Your task to perform on an android device: Open ESPN.com Image 0: 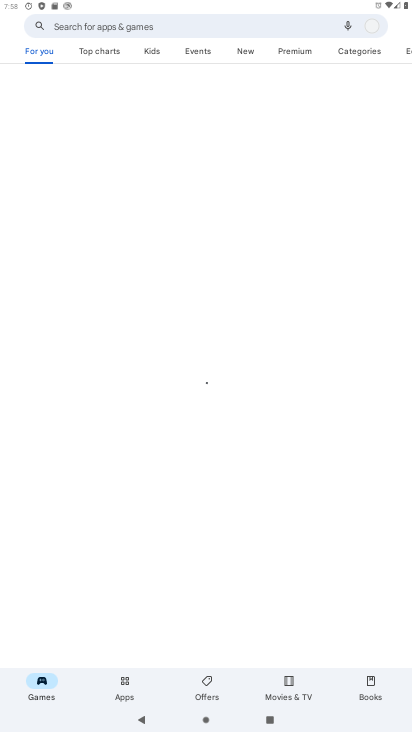
Step 0: press home button
Your task to perform on an android device: Open ESPN.com Image 1: 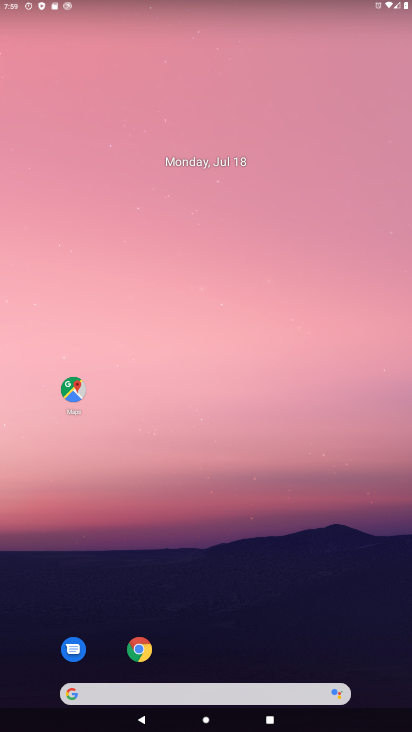
Step 1: drag from (247, 589) to (158, 51)
Your task to perform on an android device: Open ESPN.com Image 2: 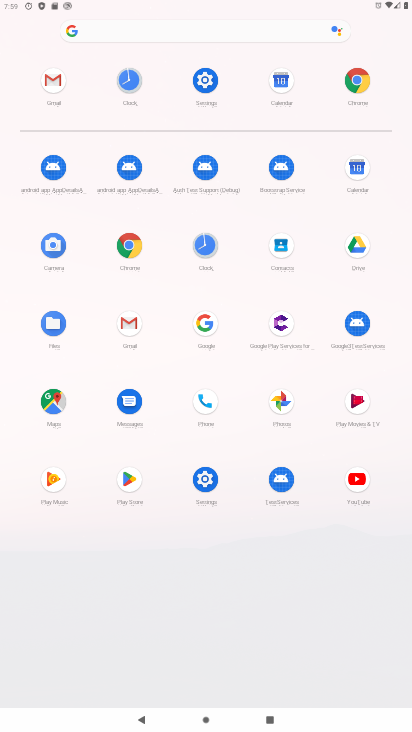
Step 2: click (353, 80)
Your task to perform on an android device: Open ESPN.com Image 3: 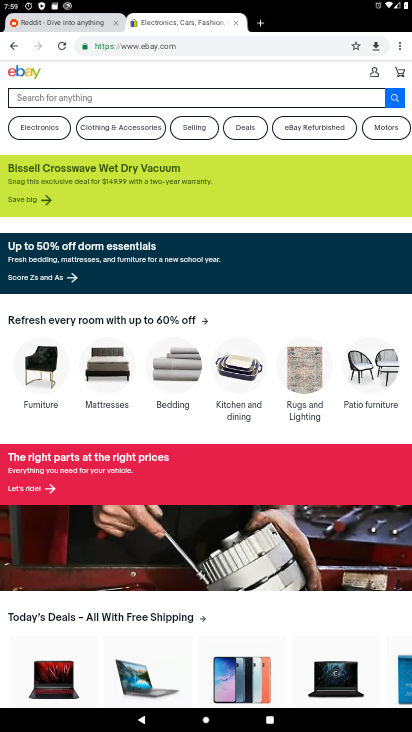
Step 3: click (156, 49)
Your task to perform on an android device: Open ESPN.com Image 4: 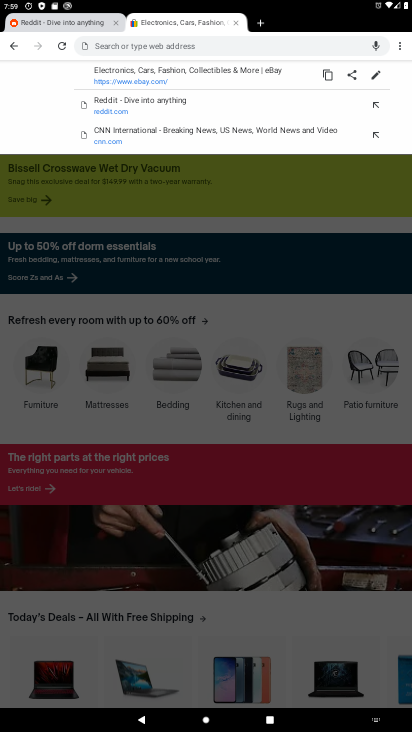
Step 4: type "espn.com"
Your task to perform on an android device: Open ESPN.com Image 5: 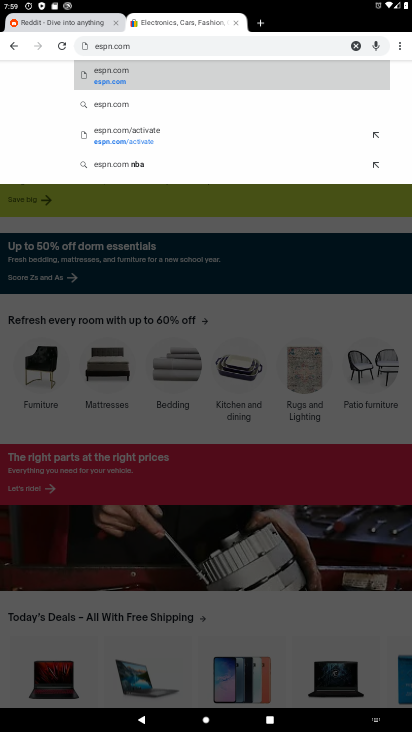
Step 5: click (116, 65)
Your task to perform on an android device: Open ESPN.com Image 6: 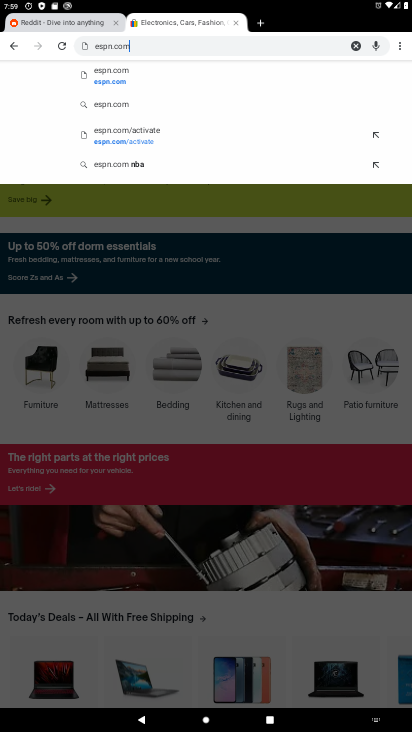
Step 6: click (114, 73)
Your task to perform on an android device: Open ESPN.com Image 7: 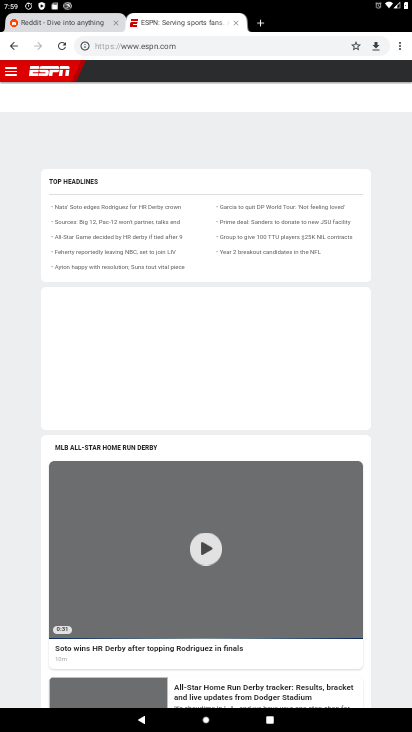
Step 7: task complete